Your task to perform on an android device: Open settings Image 0: 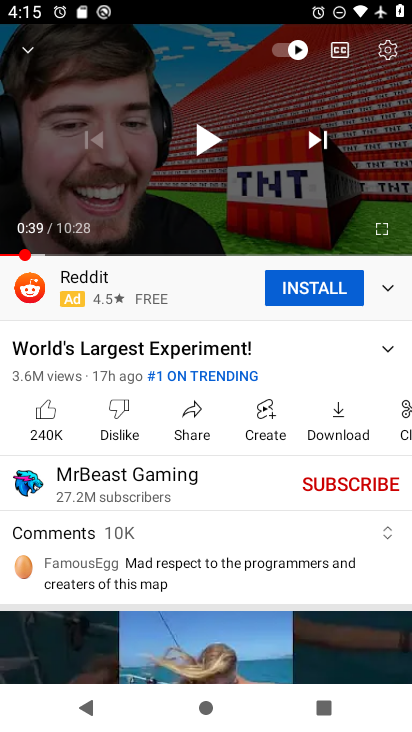
Step 0: press home button
Your task to perform on an android device: Open settings Image 1: 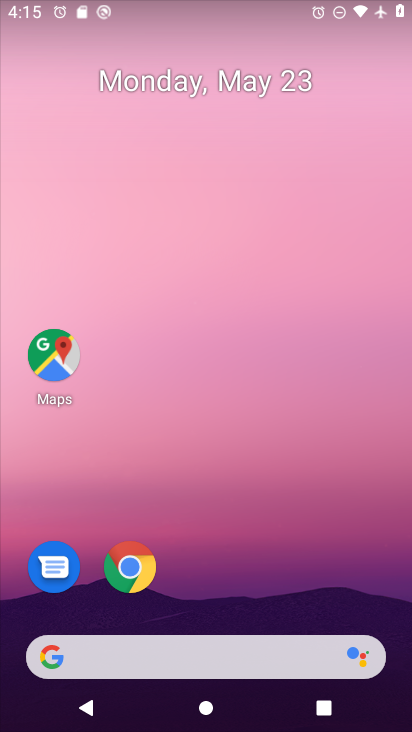
Step 1: drag from (372, 614) to (363, 15)
Your task to perform on an android device: Open settings Image 2: 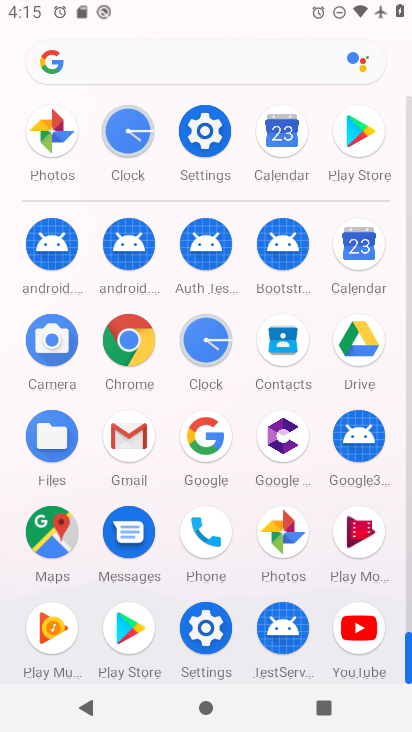
Step 2: click (202, 626)
Your task to perform on an android device: Open settings Image 3: 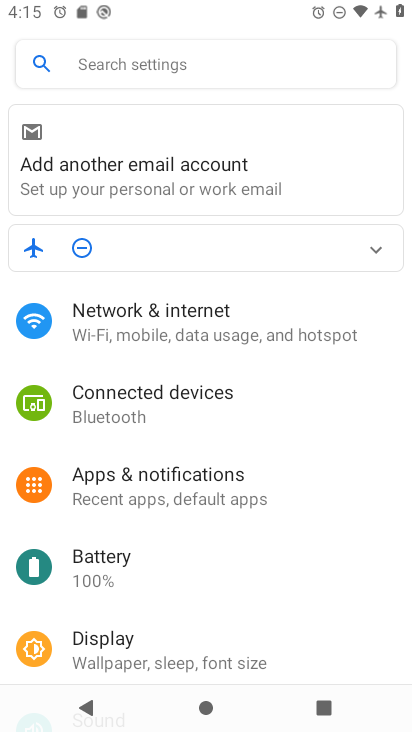
Step 3: task complete